Your task to perform on an android device: Go to sound settings Image 0: 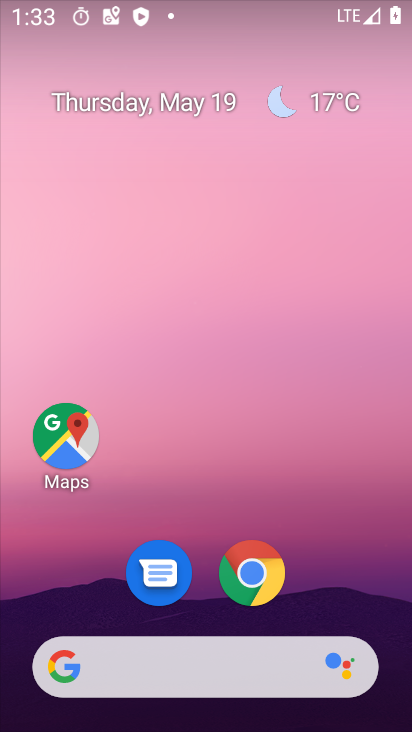
Step 0: drag from (217, 618) to (296, 27)
Your task to perform on an android device: Go to sound settings Image 1: 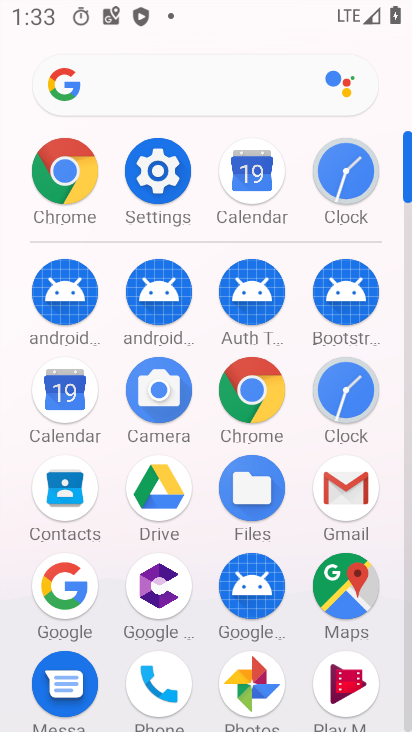
Step 1: click (159, 165)
Your task to perform on an android device: Go to sound settings Image 2: 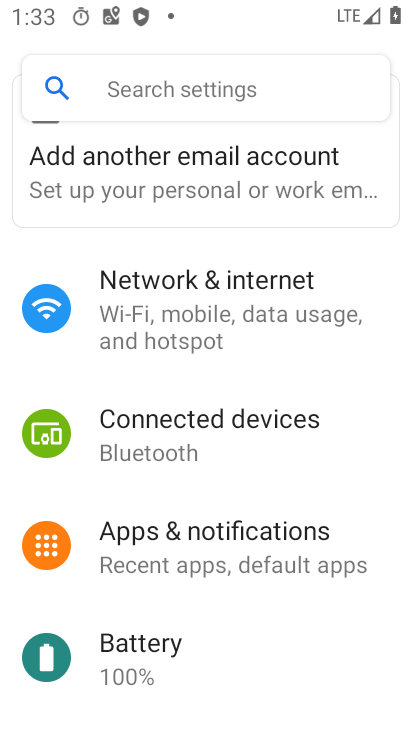
Step 2: drag from (175, 628) to (315, 254)
Your task to perform on an android device: Go to sound settings Image 3: 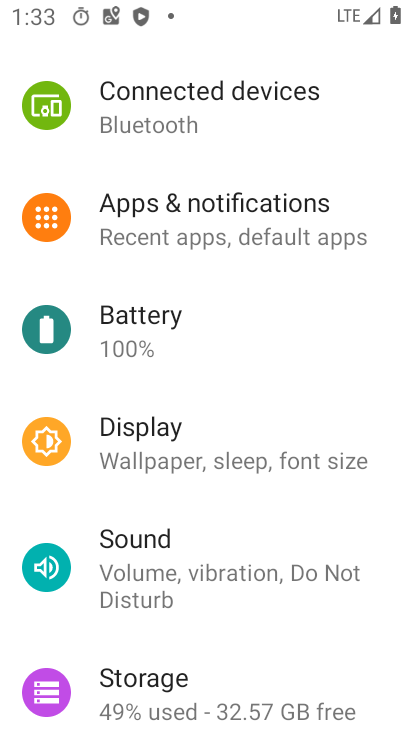
Step 3: click (135, 581)
Your task to perform on an android device: Go to sound settings Image 4: 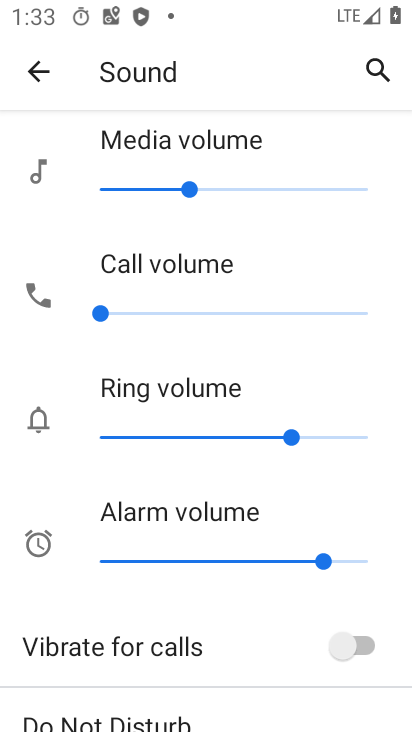
Step 4: task complete